Your task to perform on an android device: Show me productivity apps on the Play Store Image 0: 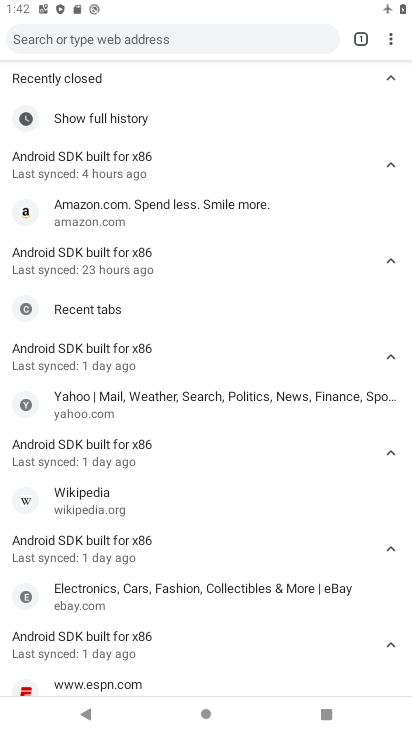
Step 0: press home button
Your task to perform on an android device: Show me productivity apps on the Play Store Image 1: 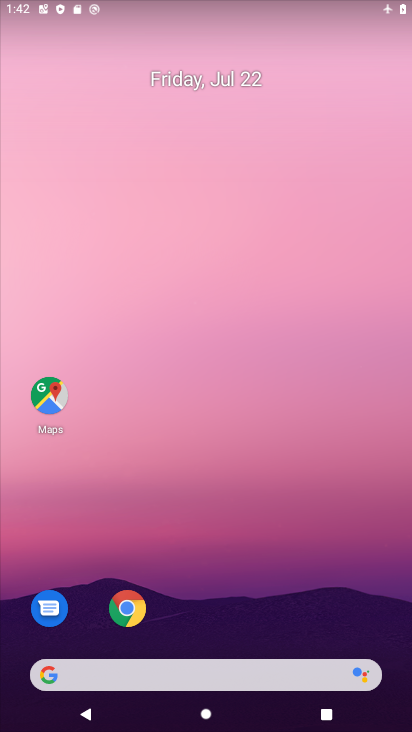
Step 1: drag from (224, 722) to (194, 220)
Your task to perform on an android device: Show me productivity apps on the Play Store Image 2: 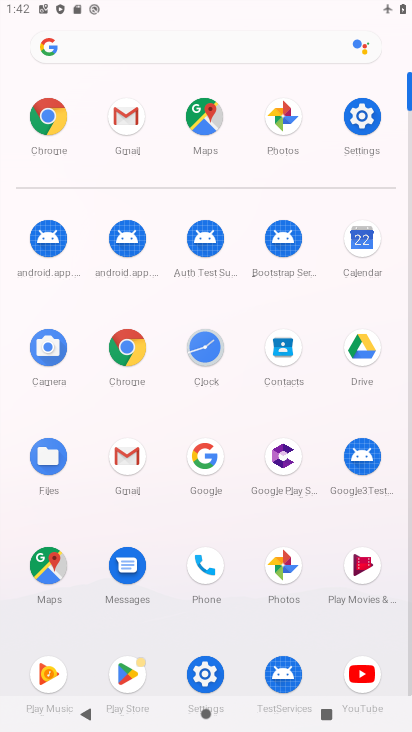
Step 2: click (121, 675)
Your task to perform on an android device: Show me productivity apps on the Play Store Image 3: 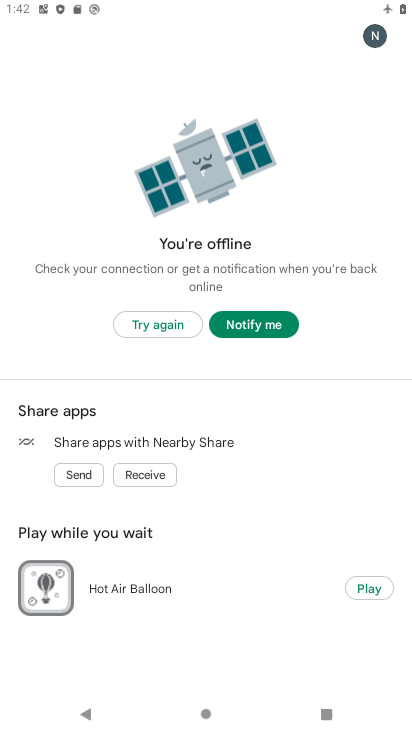
Step 3: click (171, 319)
Your task to perform on an android device: Show me productivity apps on the Play Store Image 4: 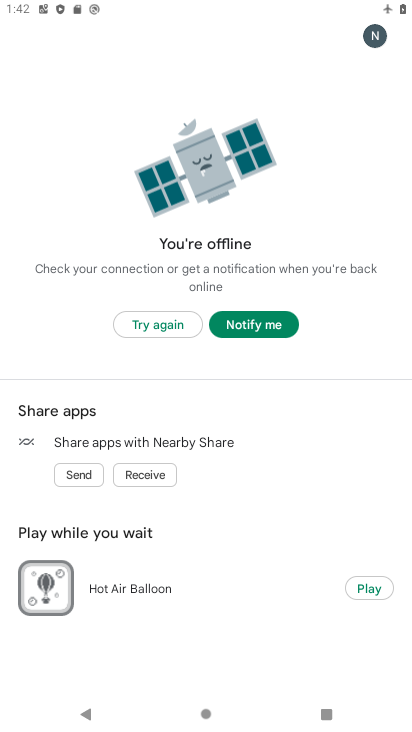
Step 4: task complete